Your task to perform on an android device: turn off smart reply in the gmail app Image 0: 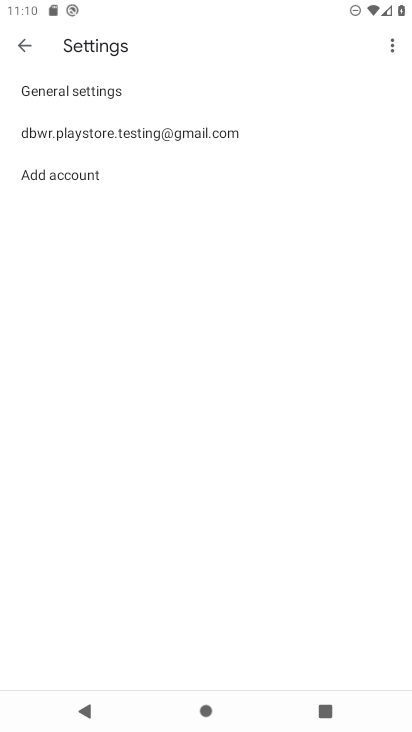
Step 0: press home button
Your task to perform on an android device: turn off smart reply in the gmail app Image 1: 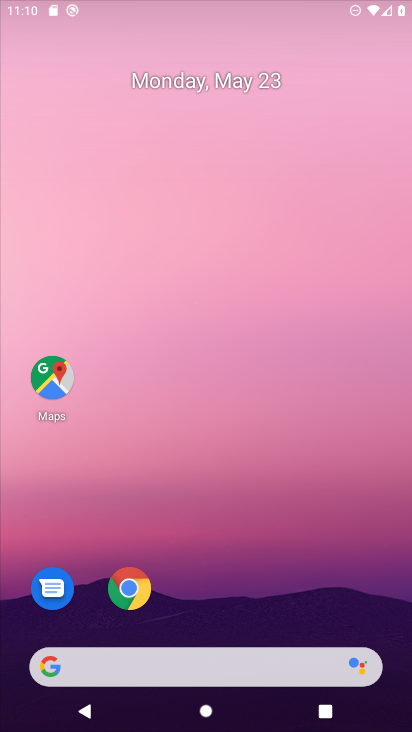
Step 1: drag from (300, 395) to (295, 181)
Your task to perform on an android device: turn off smart reply in the gmail app Image 2: 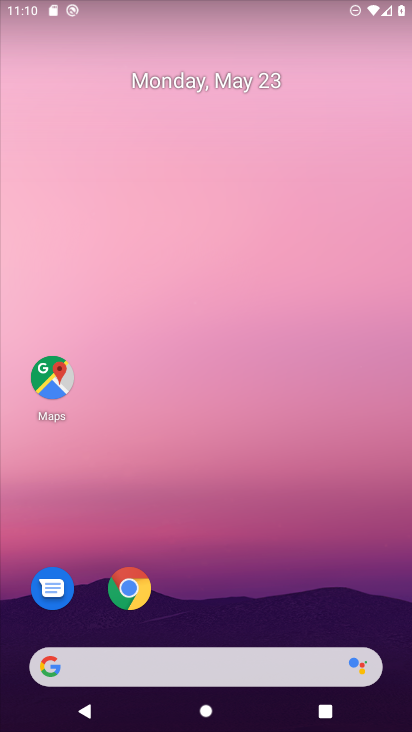
Step 2: drag from (245, 518) to (279, 175)
Your task to perform on an android device: turn off smart reply in the gmail app Image 3: 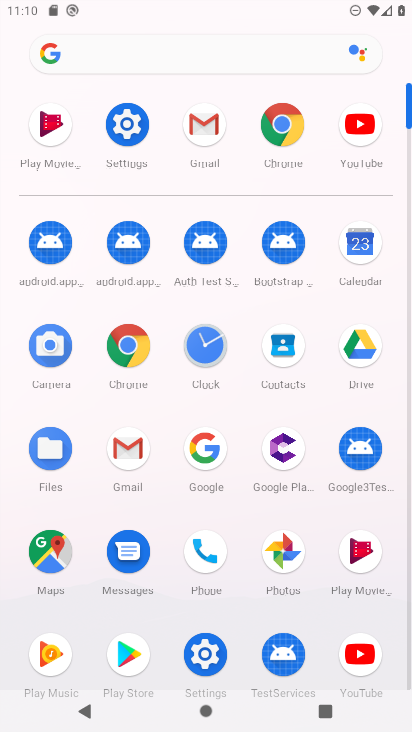
Step 3: click (213, 128)
Your task to perform on an android device: turn off smart reply in the gmail app Image 4: 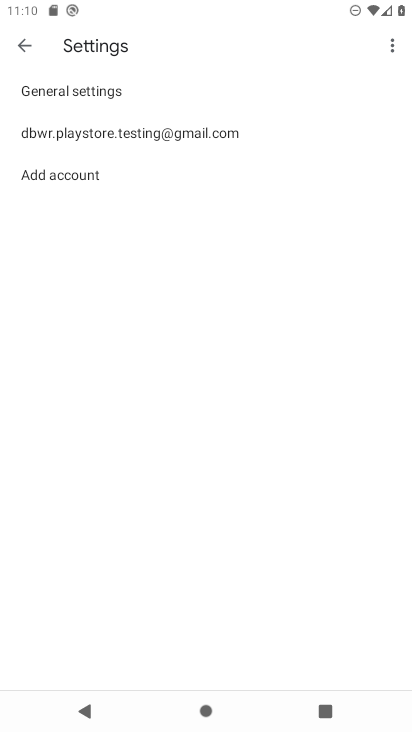
Step 4: click (142, 136)
Your task to perform on an android device: turn off smart reply in the gmail app Image 5: 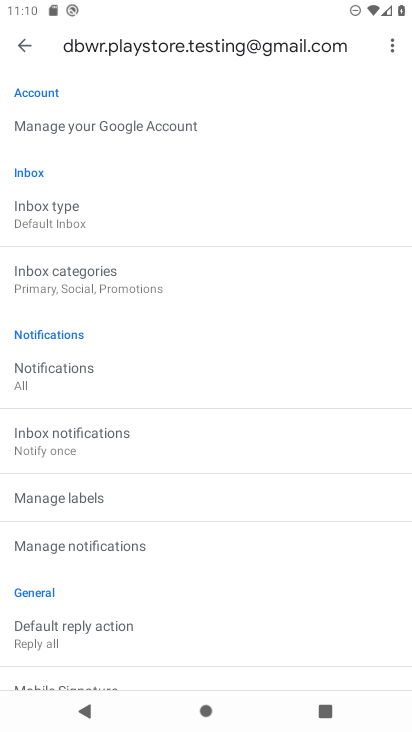
Step 5: task complete